Your task to perform on an android device: see tabs open on other devices in the chrome app Image 0: 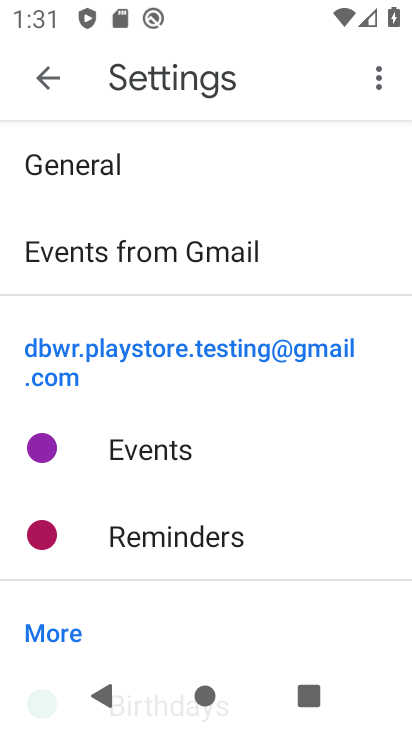
Step 0: press home button
Your task to perform on an android device: see tabs open on other devices in the chrome app Image 1: 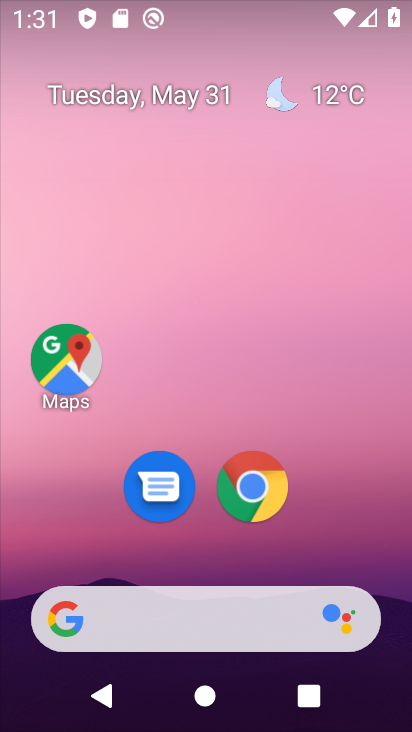
Step 1: click (247, 488)
Your task to perform on an android device: see tabs open on other devices in the chrome app Image 2: 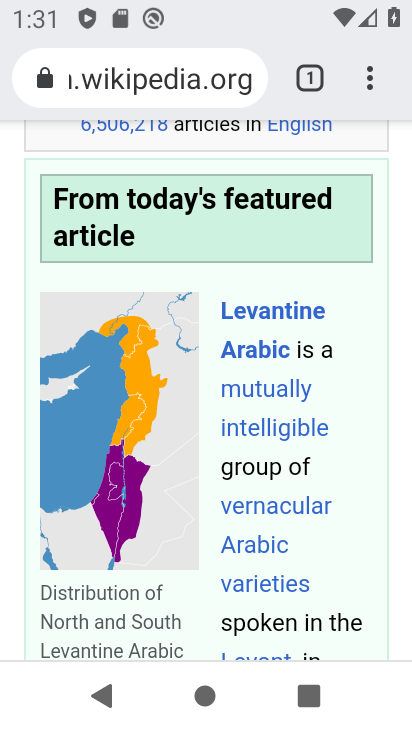
Step 2: press home button
Your task to perform on an android device: see tabs open on other devices in the chrome app Image 3: 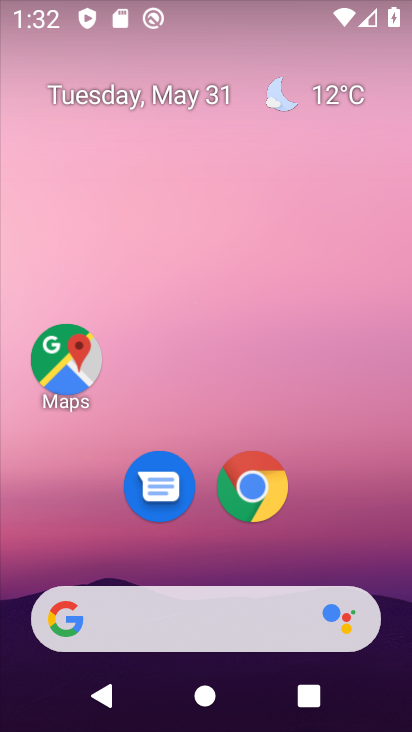
Step 3: click (235, 495)
Your task to perform on an android device: see tabs open on other devices in the chrome app Image 4: 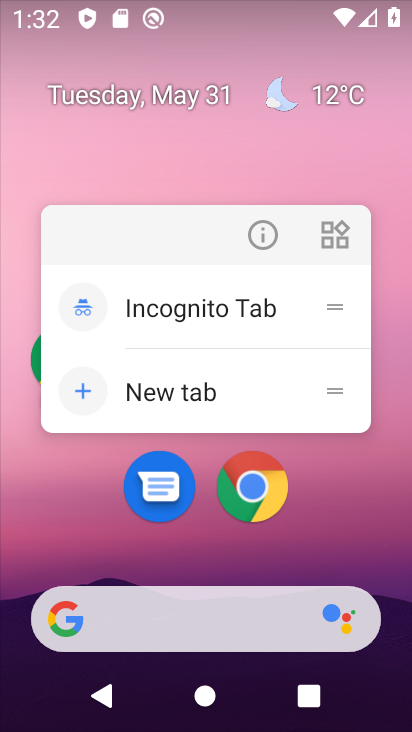
Step 4: click (251, 494)
Your task to perform on an android device: see tabs open on other devices in the chrome app Image 5: 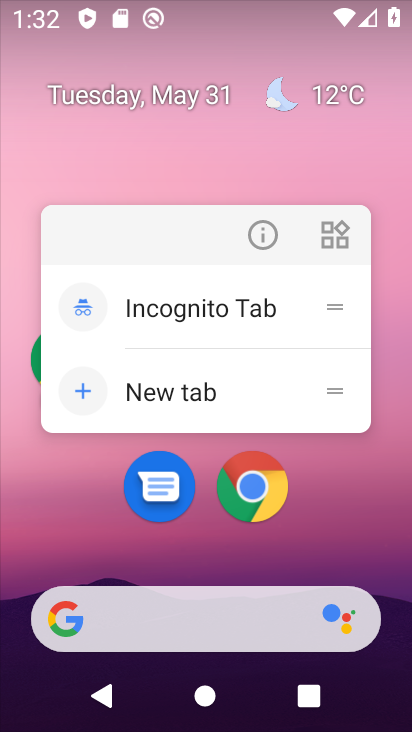
Step 5: click (260, 481)
Your task to perform on an android device: see tabs open on other devices in the chrome app Image 6: 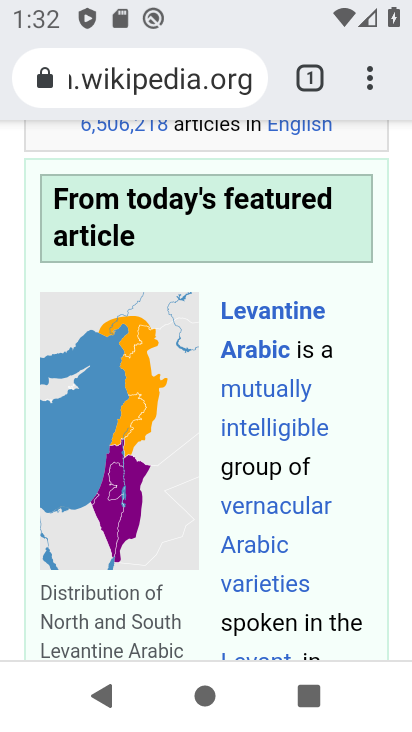
Step 6: click (364, 77)
Your task to perform on an android device: see tabs open on other devices in the chrome app Image 7: 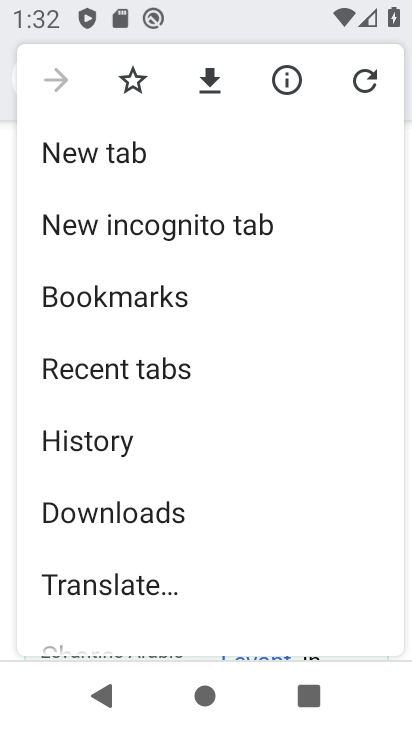
Step 7: click (133, 374)
Your task to perform on an android device: see tabs open on other devices in the chrome app Image 8: 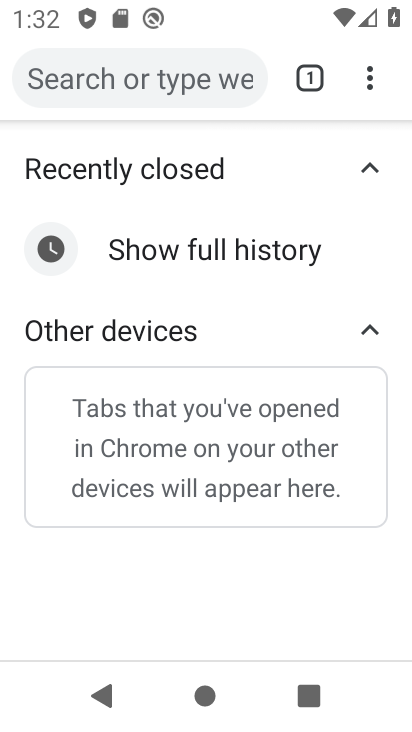
Step 8: task complete